Your task to perform on an android device: Search for flights from NYC to London Image 0: 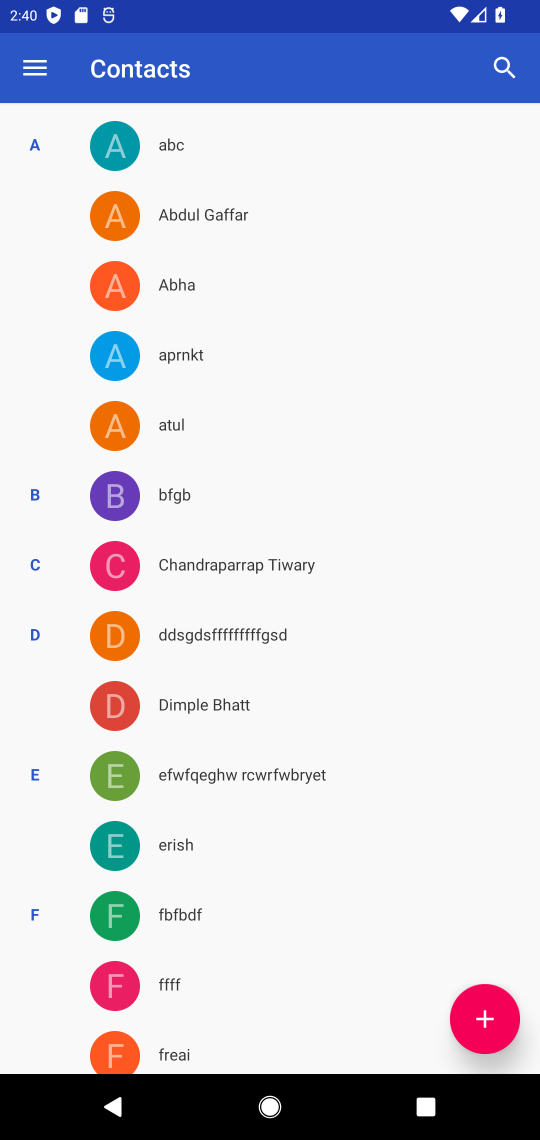
Step 0: press home button
Your task to perform on an android device: Search for flights from NYC to London Image 1: 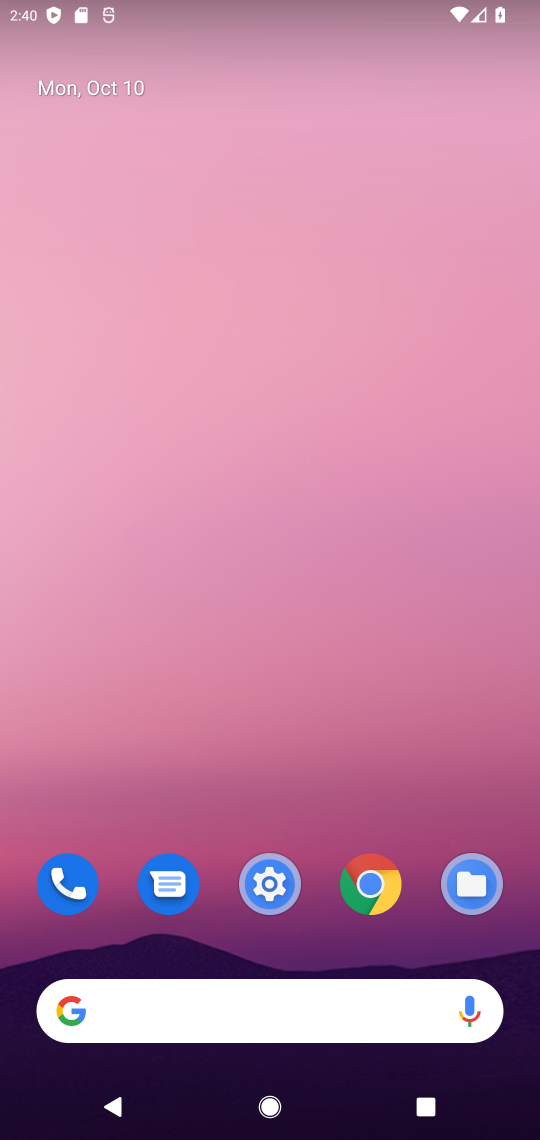
Step 1: click (335, 995)
Your task to perform on an android device: Search for flights from NYC to London Image 2: 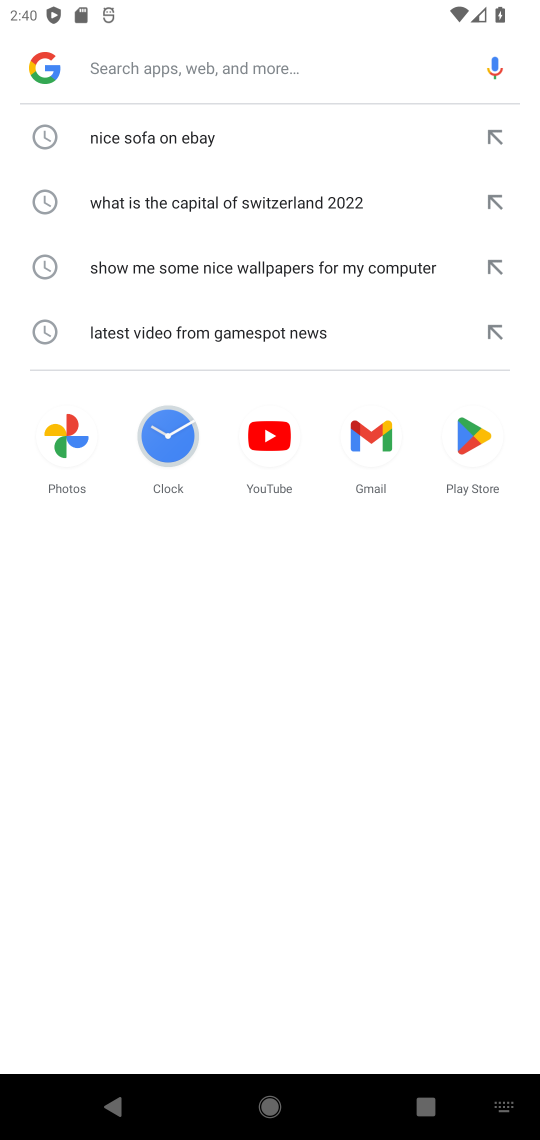
Step 2: type " flights from NYC to London"
Your task to perform on an android device: Search for flights from NYC to London Image 3: 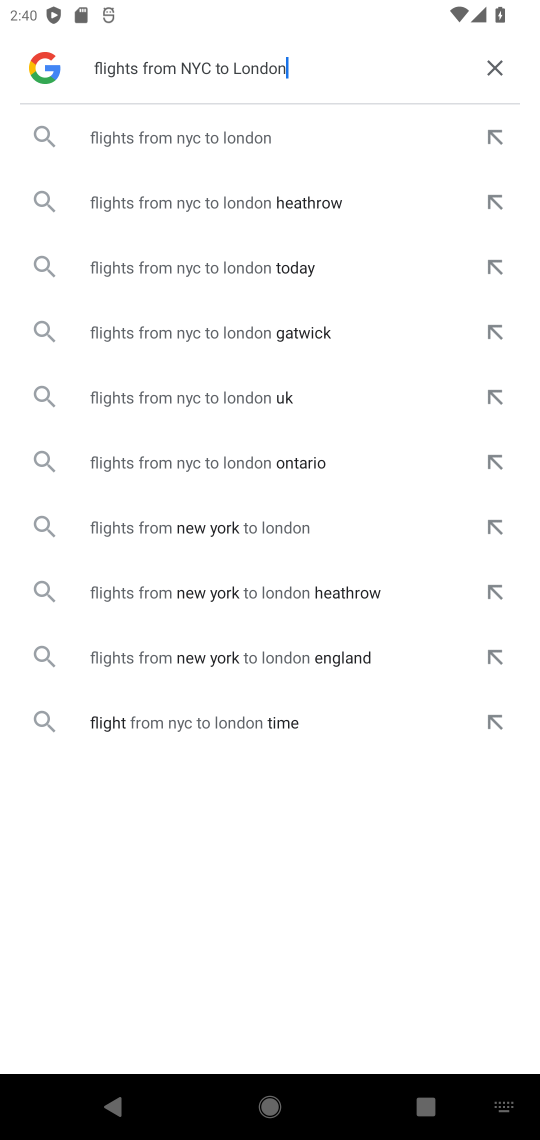
Step 3: click (240, 139)
Your task to perform on an android device: Search for flights from NYC to London Image 4: 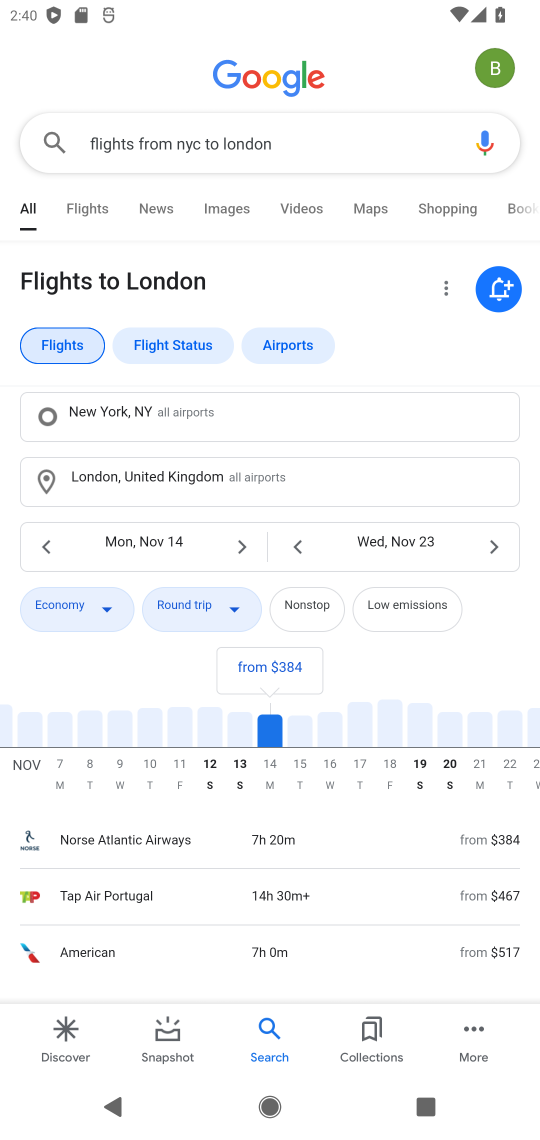
Step 4: task complete